Your task to perform on an android device: turn off improve location accuracy Image 0: 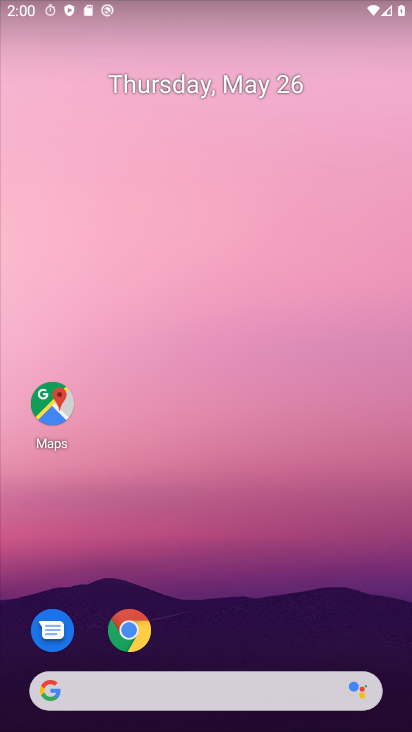
Step 0: drag from (264, 496) to (304, 38)
Your task to perform on an android device: turn off improve location accuracy Image 1: 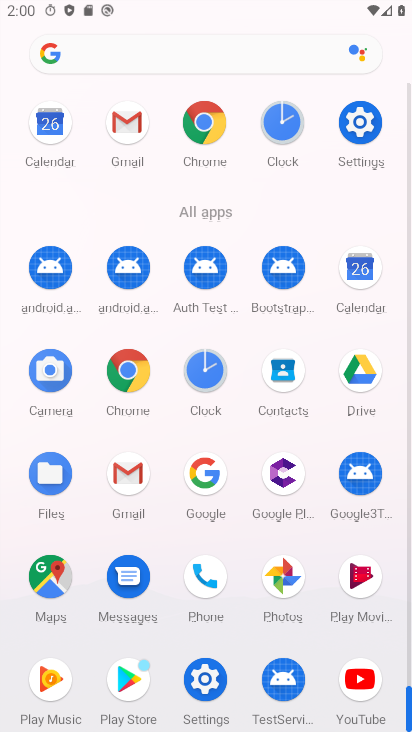
Step 1: click (364, 129)
Your task to perform on an android device: turn off improve location accuracy Image 2: 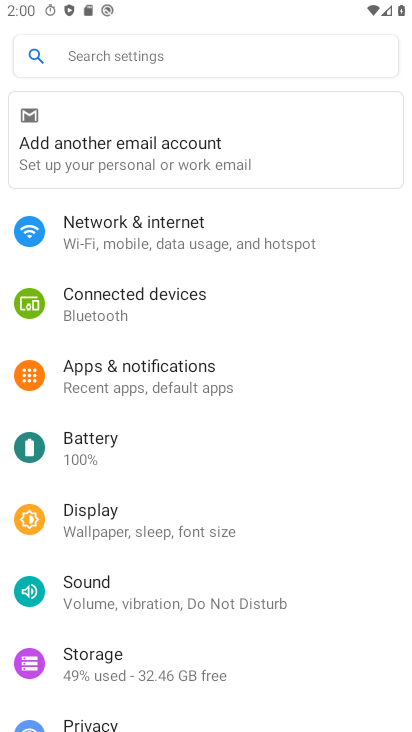
Step 2: drag from (198, 587) to (271, 174)
Your task to perform on an android device: turn off improve location accuracy Image 3: 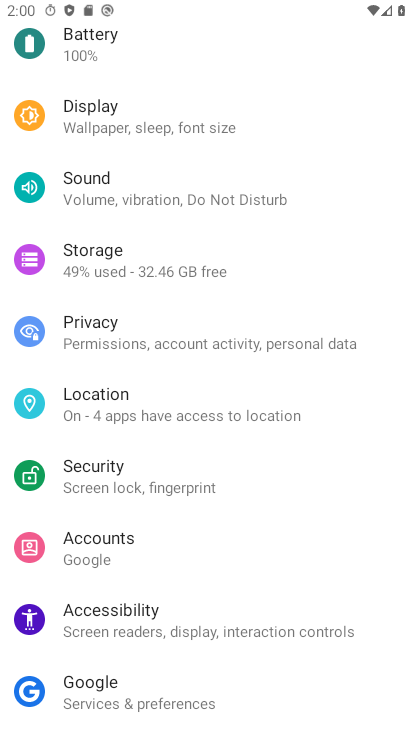
Step 3: click (208, 417)
Your task to perform on an android device: turn off improve location accuracy Image 4: 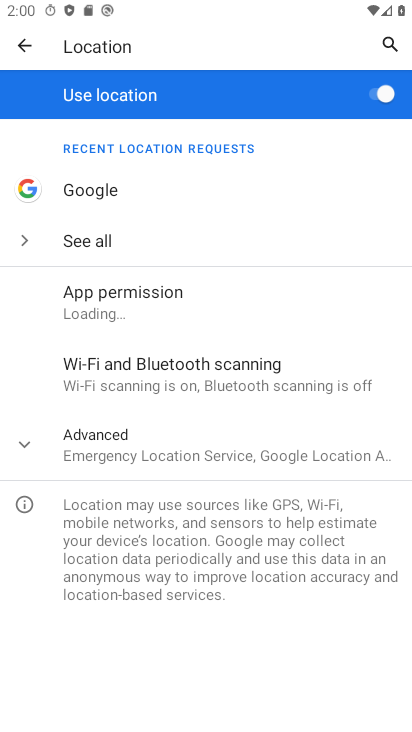
Step 4: click (175, 441)
Your task to perform on an android device: turn off improve location accuracy Image 5: 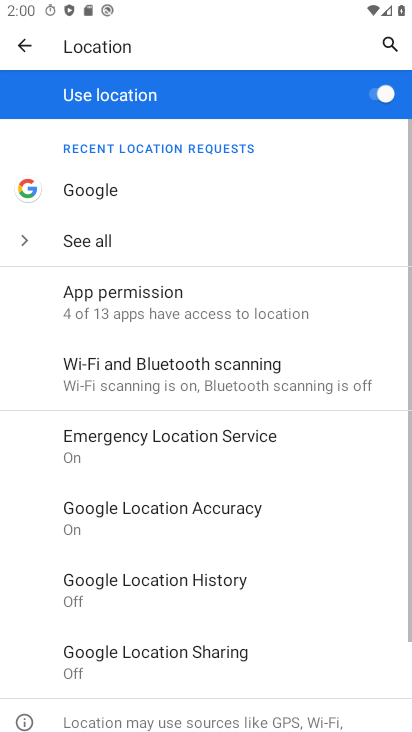
Step 5: drag from (288, 619) to (304, 274)
Your task to perform on an android device: turn off improve location accuracy Image 6: 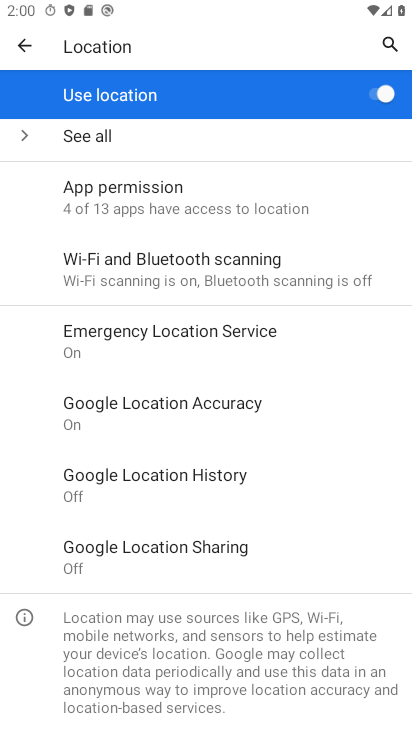
Step 6: drag from (283, 254) to (294, 602)
Your task to perform on an android device: turn off improve location accuracy Image 7: 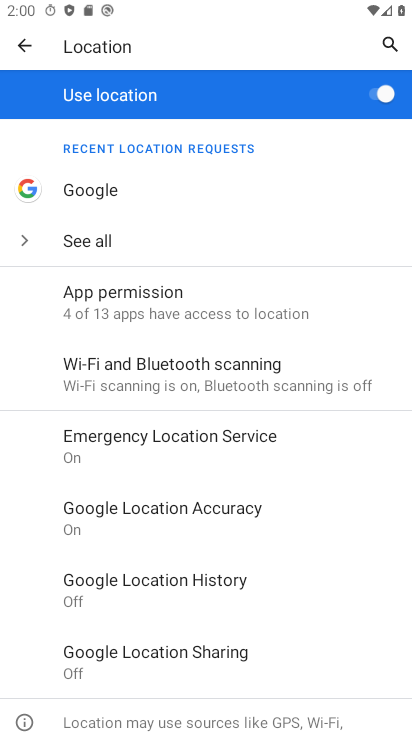
Step 7: click (196, 511)
Your task to perform on an android device: turn off improve location accuracy Image 8: 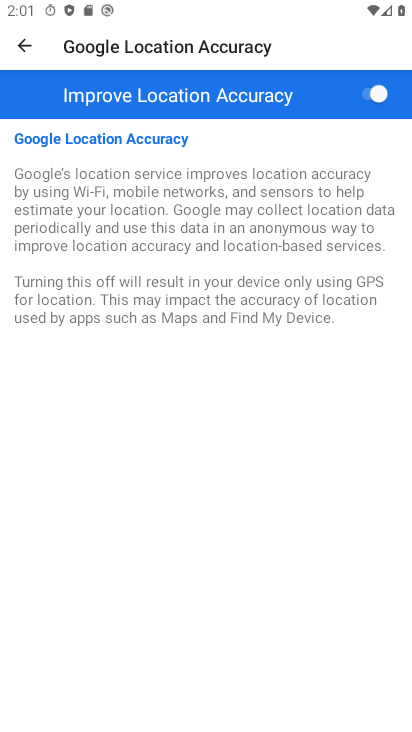
Step 8: click (374, 95)
Your task to perform on an android device: turn off improve location accuracy Image 9: 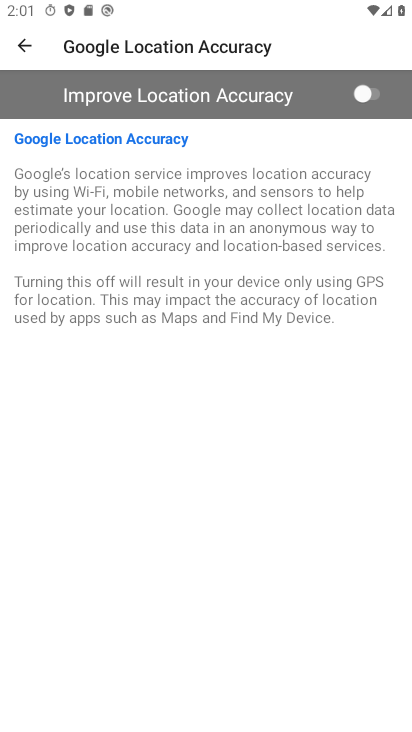
Step 9: task complete